Your task to perform on an android device: turn on airplane mode Image 0: 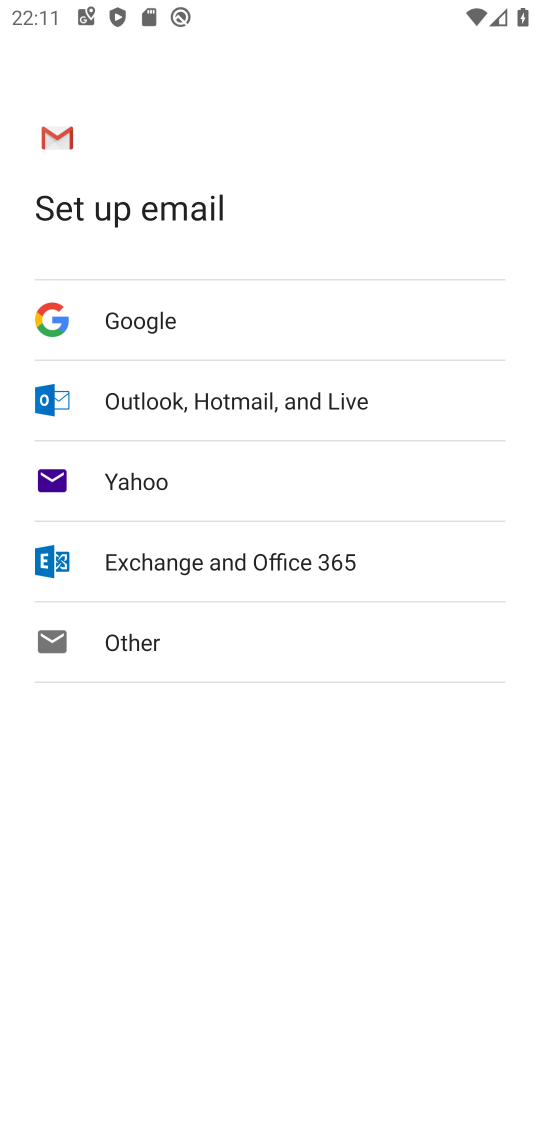
Step 0: press home button
Your task to perform on an android device: turn on airplane mode Image 1: 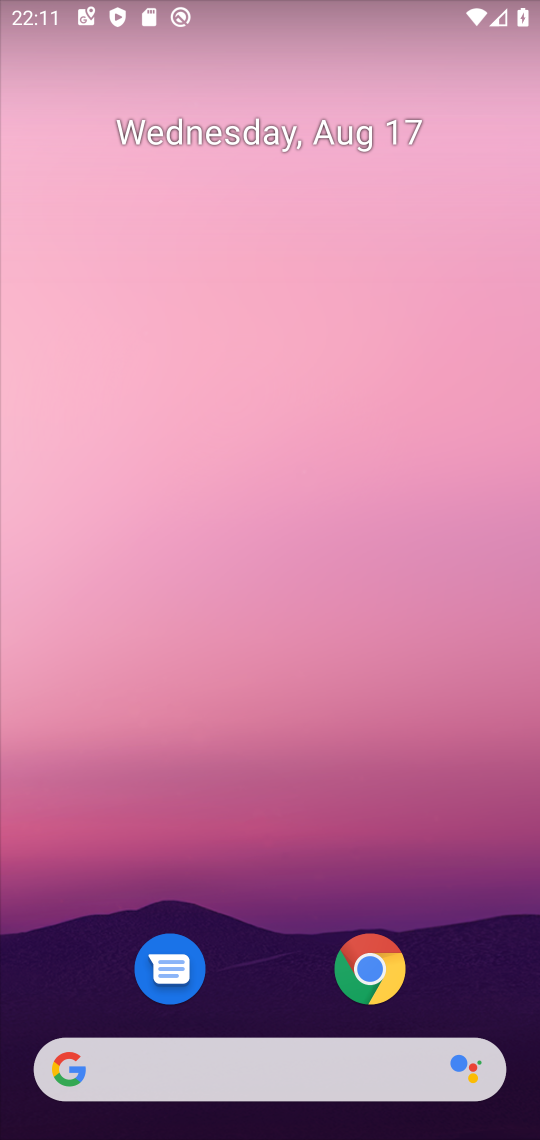
Step 1: drag from (277, 956) to (273, 331)
Your task to perform on an android device: turn on airplane mode Image 2: 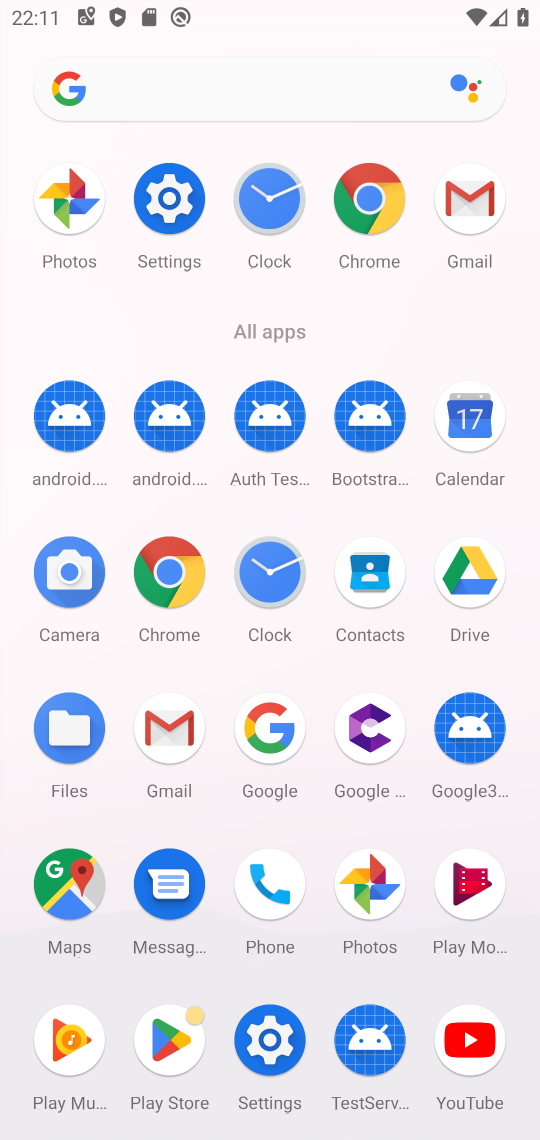
Step 2: click (177, 193)
Your task to perform on an android device: turn on airplane mode Image 3: 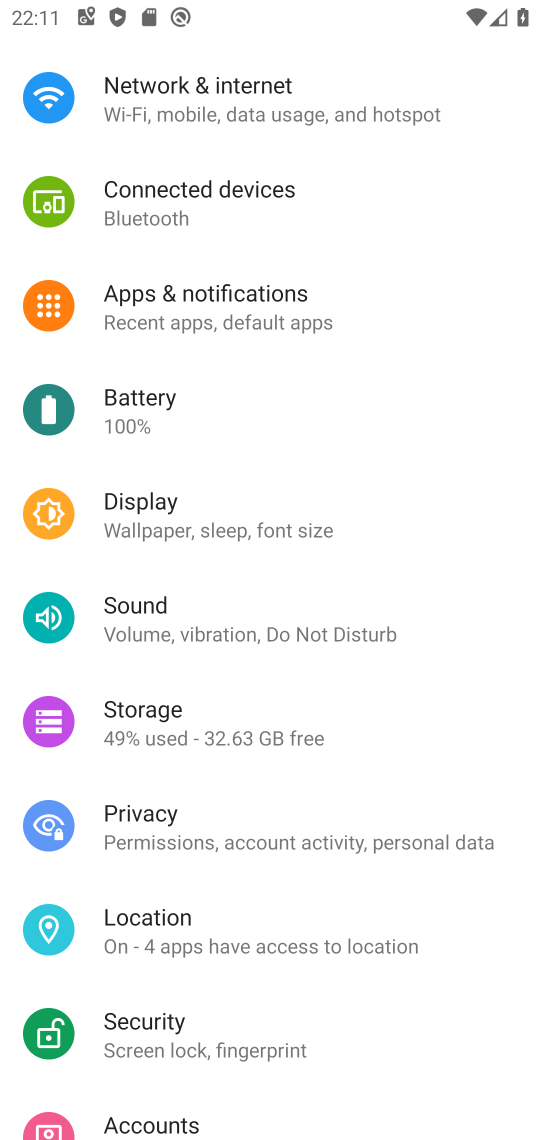
Step 3: click (205, 88)
Your task to perform on an android device: turn on airplane mode Image 4: 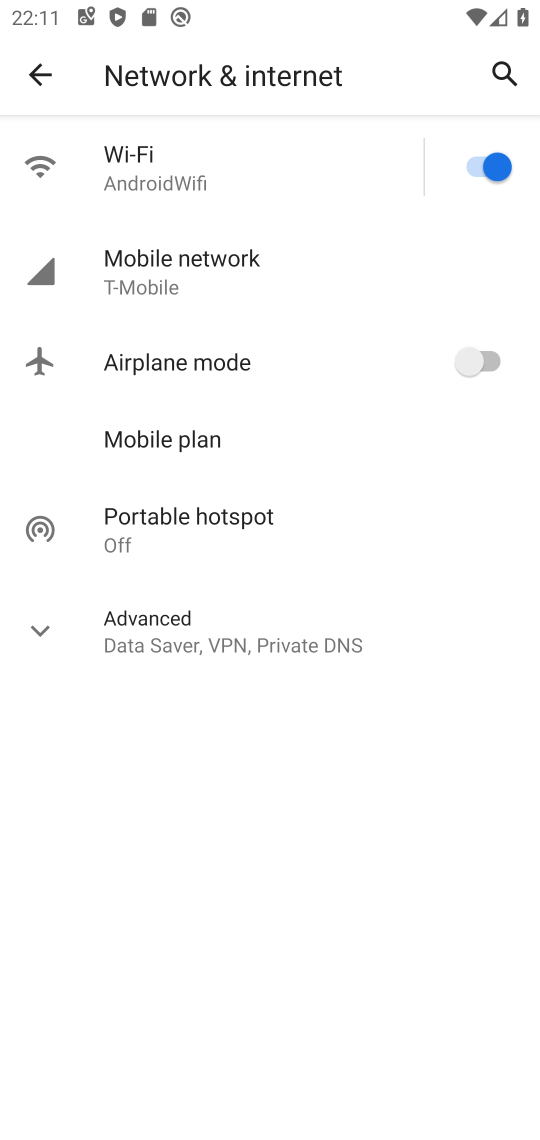
Step 4: click (478, 356)
Your task to perform on an android device: turn on airplane mode Image 5: 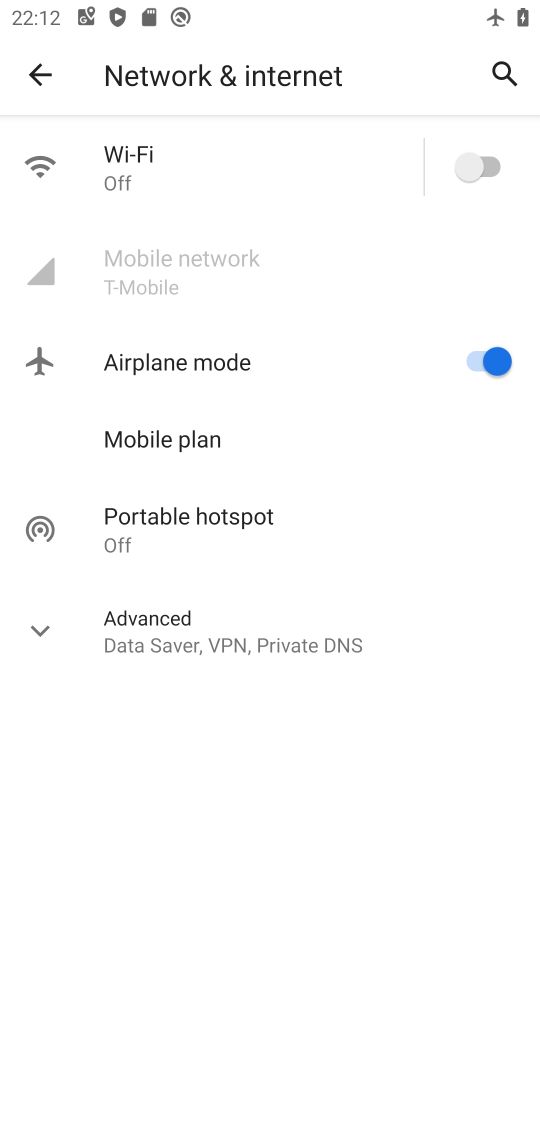
Step 5: task complete